Your task to perform on an android device: Go to settings Image 0: 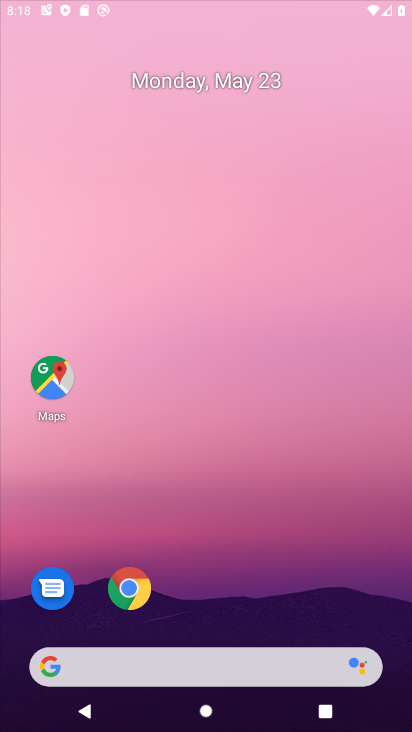
Step 0: click (48, 381)
Your task to perform on an android device: Go to settings Image 1: 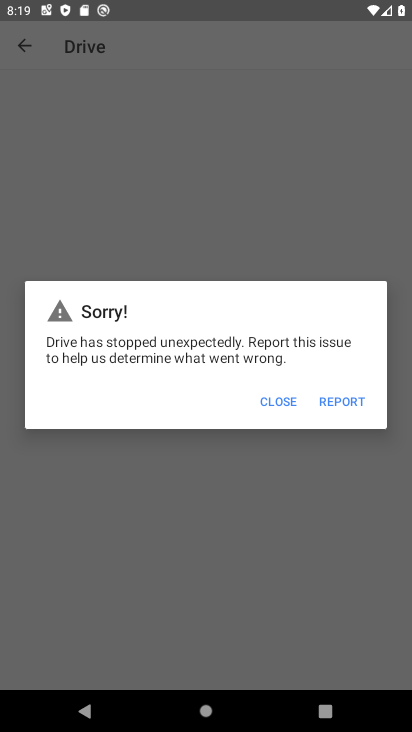
Step 1: press home button
Your task to perform on an android device: Go to settings Image 2: 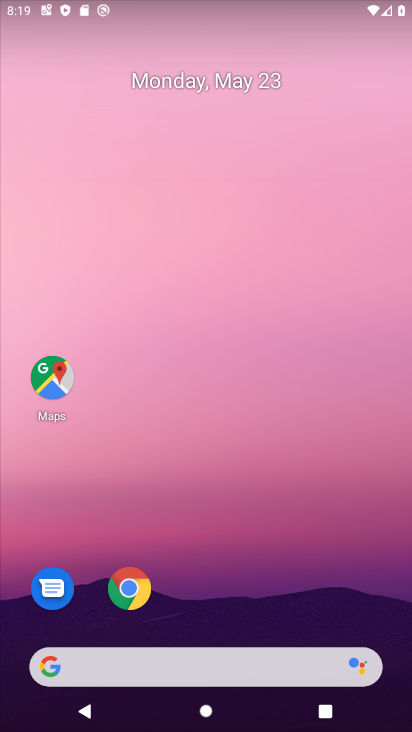
Step 2: drag from (392, 706) to (300, 109)
Your task to perform on an android device: Go to settings Image 3: 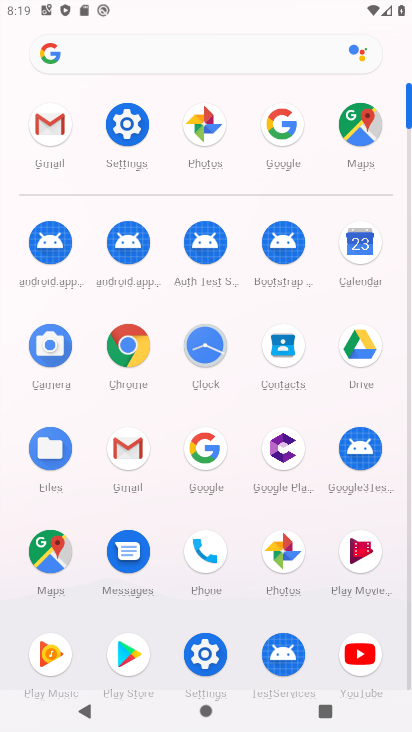
Step 3: click (116, 126)
Your task to perform on an android device: Go to settings Image 4: 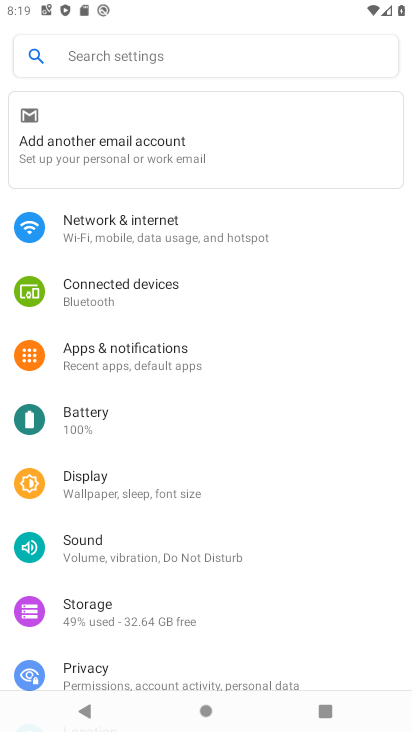
Step 4: task complete